Your task to perform on an android device: allow notifications from all sites in the chrome app Image 0: 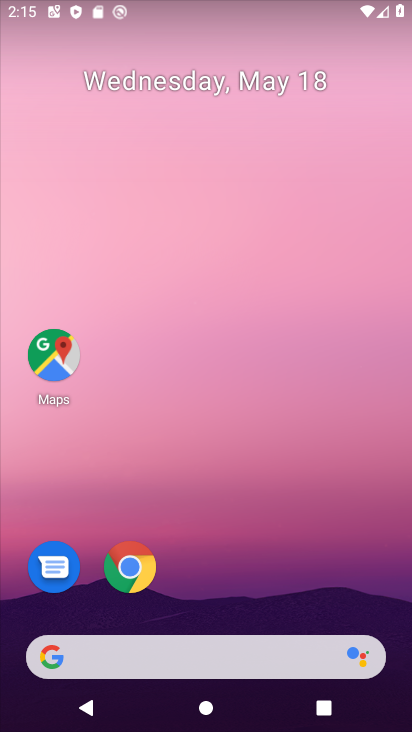
Step 0: click (129, 568)
Your task to perform on an android device: allow notifications from all sites in the chrome app Image 1: 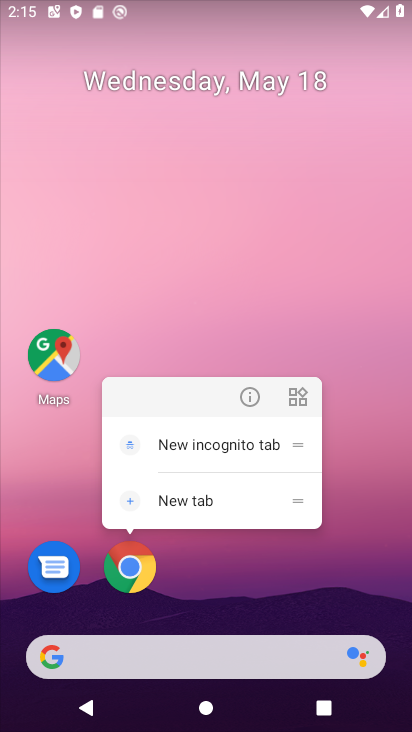
Step 1: click (135, 566)
Your task to perform on an android device: allow notifications from all sites in the chrome app Image 2: 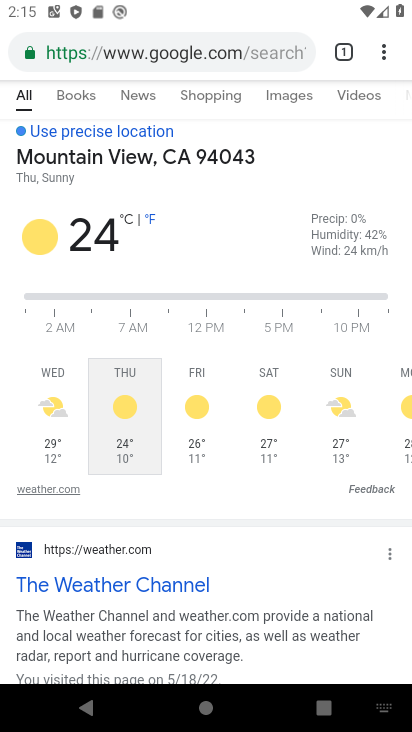
Step 2: drag from (388, 48) to (250, 572)
Your task to perform on an android device: allow notifications from all sites in the chrome app Image 3: 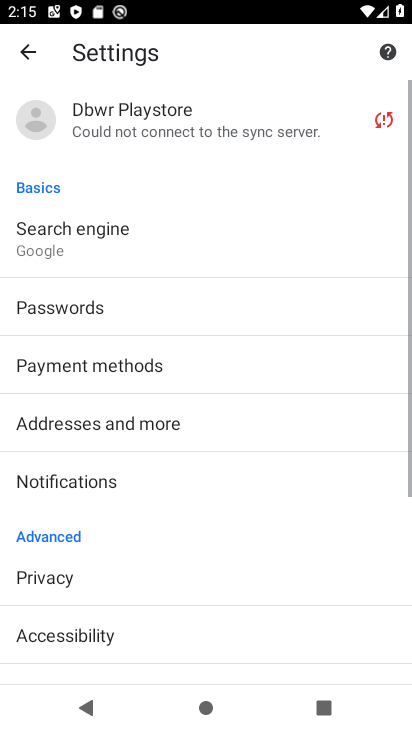
Step 3: drag from (160, 571) to (228, 424)
Your task to perform on an android device: allow notifications from all sites in the chrome app Image 4: 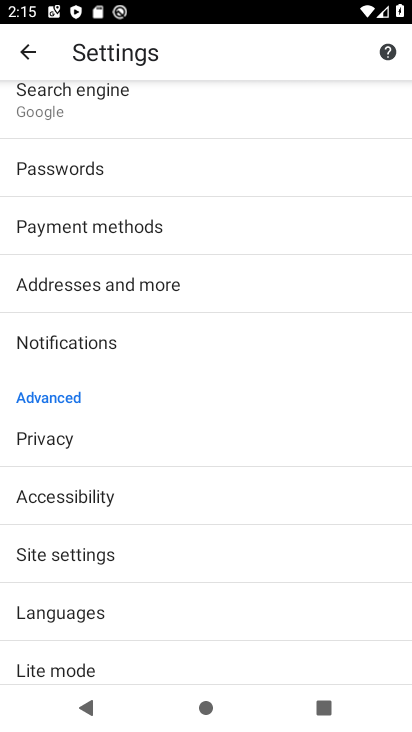
Step 4: click (105, 336)
Your task to perform on an android device: allow notifications from all sites in the chrome app Image 5: 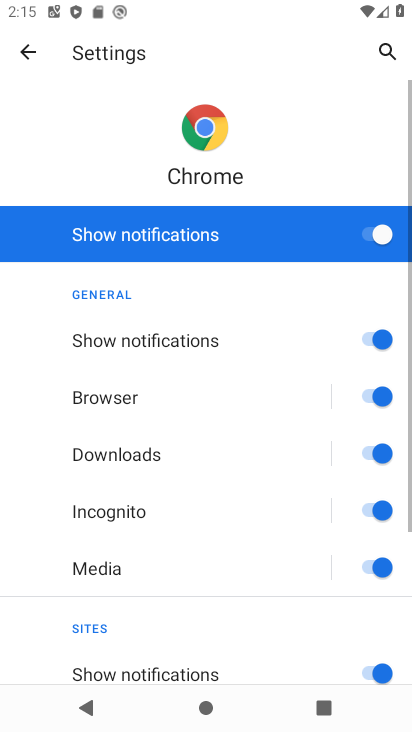
Step 5: drag from (247, 534) to (307, 111)
Your task to perform on an android device: allow notifications from all sites in the chrome app Image 6: 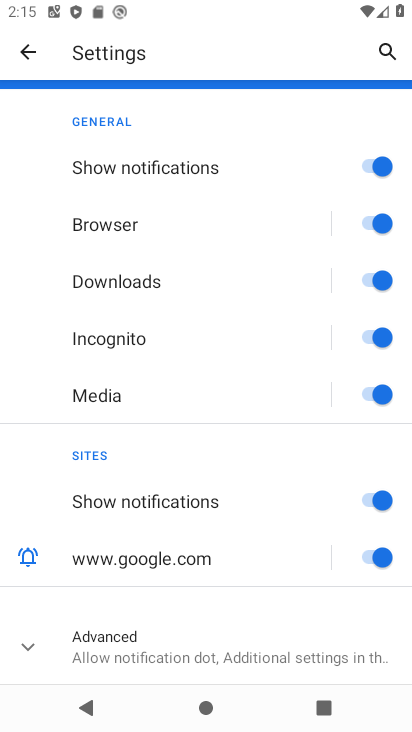
Step 6: click (132, 656)
Your task to perform on an android device: allow notifications from all sites in the chrome app Image 7: 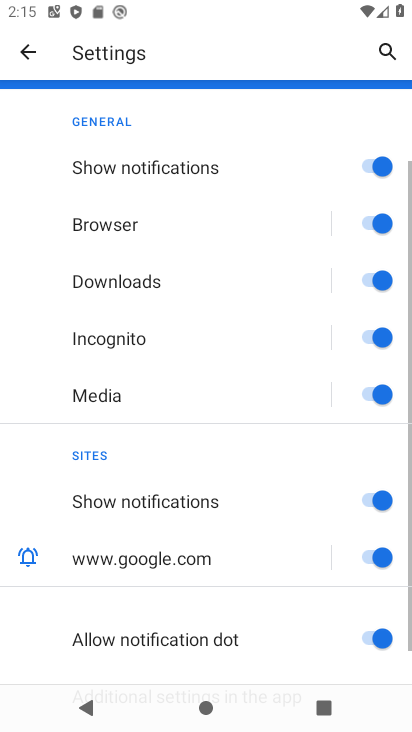
Step 7: task complete